Your task to perform on an android device: find photos in the google photos app Image 0: 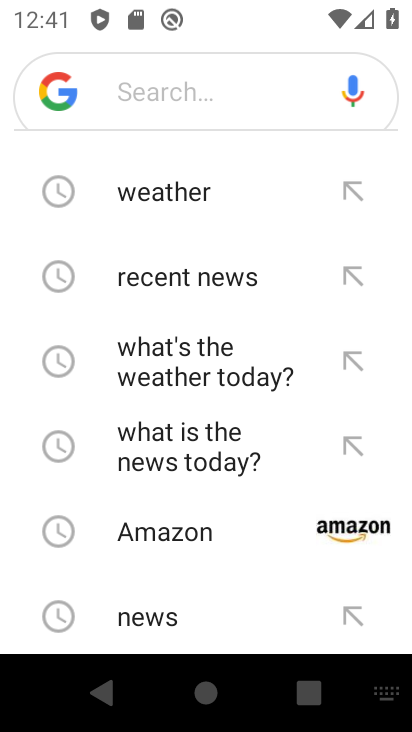
Step 0: press home button
Your task to perform on an android device: find photos in the google photos app Image 1: 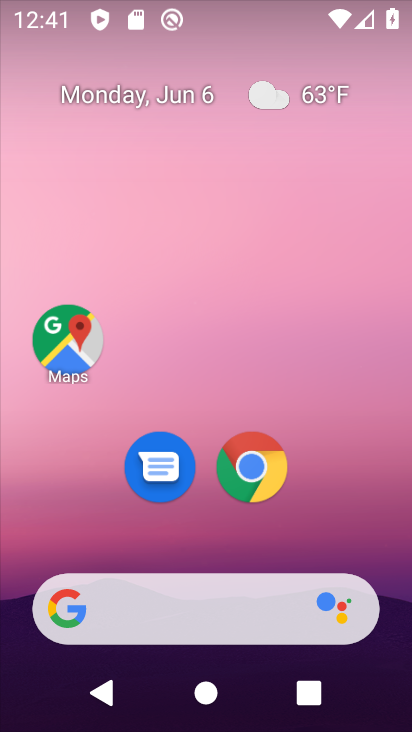
Step 1: drag from (393, 618) to (198, 18)
Your task to perform on an android device: find photos in the google photos app Image 2: 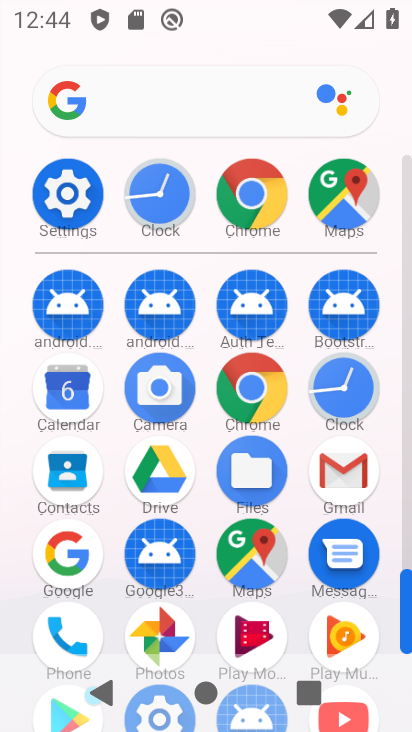
Step 2: click (158, 635)
Your task to perform on an android device: find photos in the google photos app Image 3: 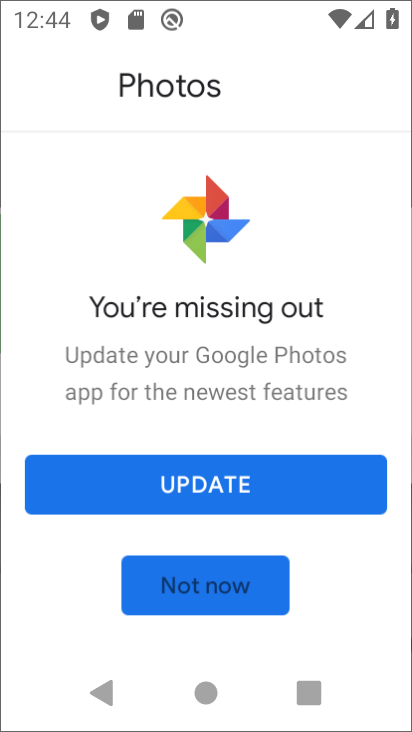
Step 3: click (270, 457)
Your task to perform on an android device: find photos in the google photos app Image 4: 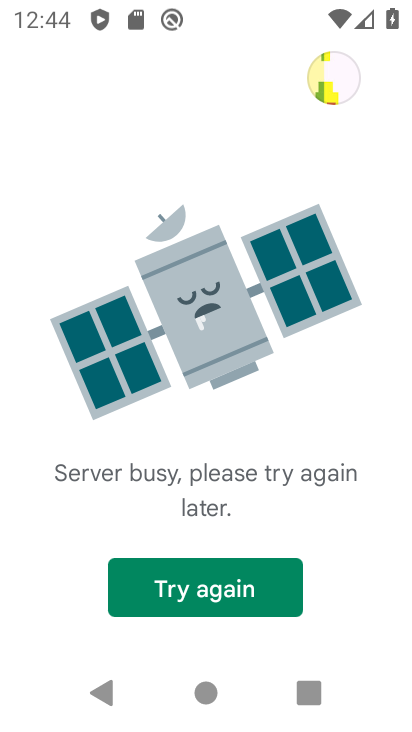
Step 4: task complete